Your task to perform on an android device: Open Maps and search for coffee Image 0: 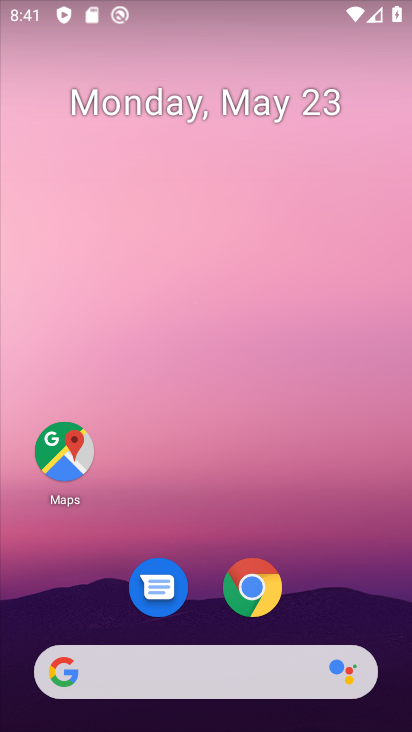
Step 0: click (66, 447)
Your task to perform on an android device: Open Maps and search for coffee Image 1: 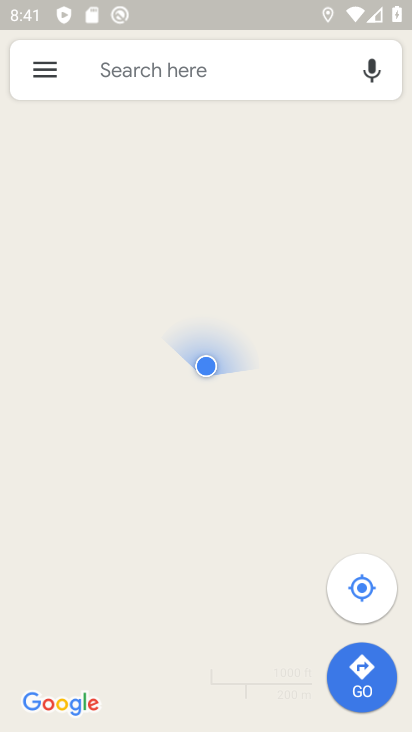
Step 1: click (165, 67)
Your task to perform on an android device: Open Maps and search for coffee Image 2: 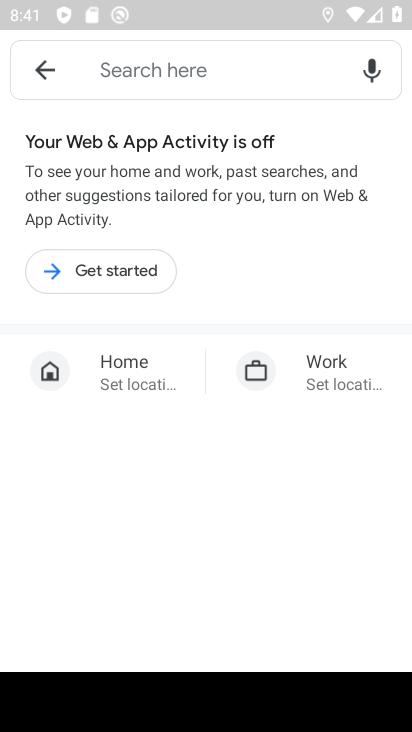
Step 2: type "coffee"
Your task to perform on an android device: Open Maps and search for coffee Image 3: 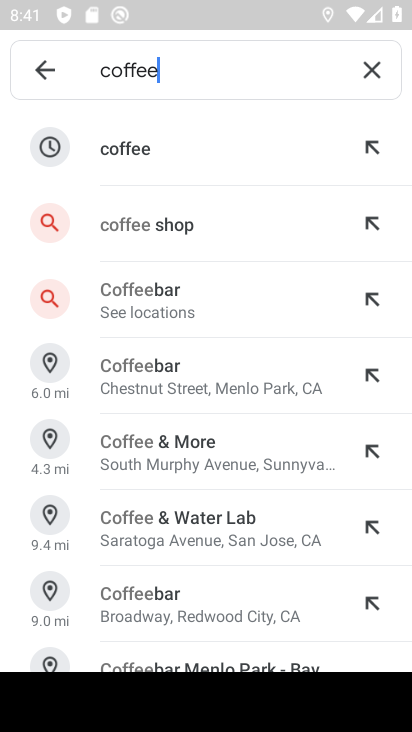
Step 3: click (133, 167)
Your task to perform on an android device: Open Maps and search for coffee Image 4: 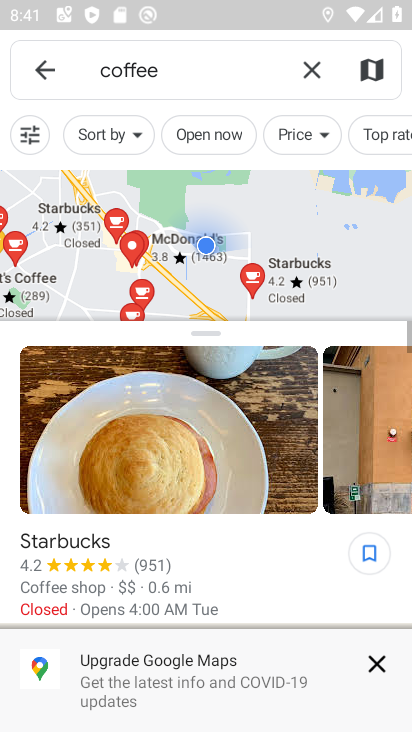
Step 4: task complete